Your task to perform on an android device: When is my next meeting? Image 0: 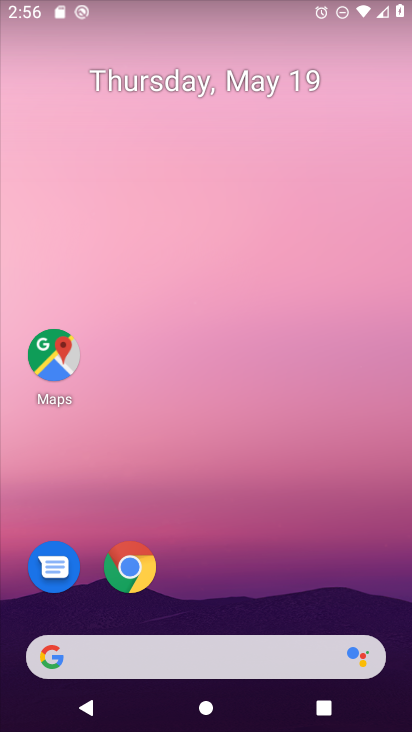
Step 0: drag from (242, 542) to (212, 62)
Your task to perform on an android device: When is my next meeting? Image 1: 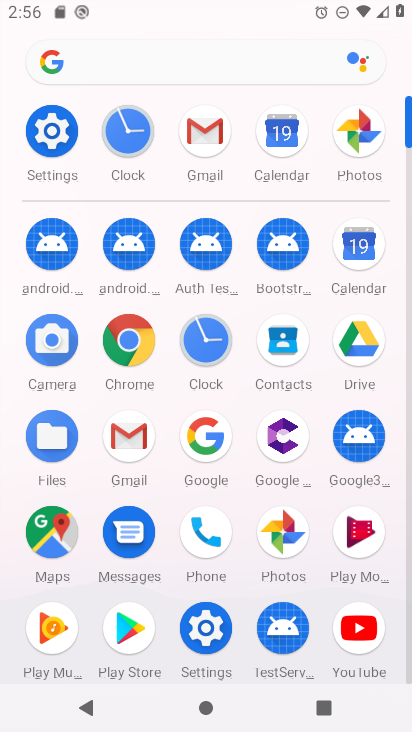
Step 1: click (286, 131)
Your task to perform on an android device: When is my next meeting? Image 2: 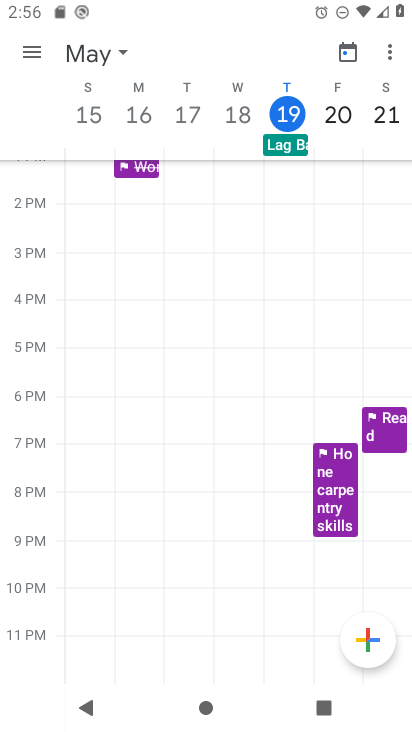
Step 2: click (288, 112)
Your task to perform on an android device: When is my next meeting? Image 3: 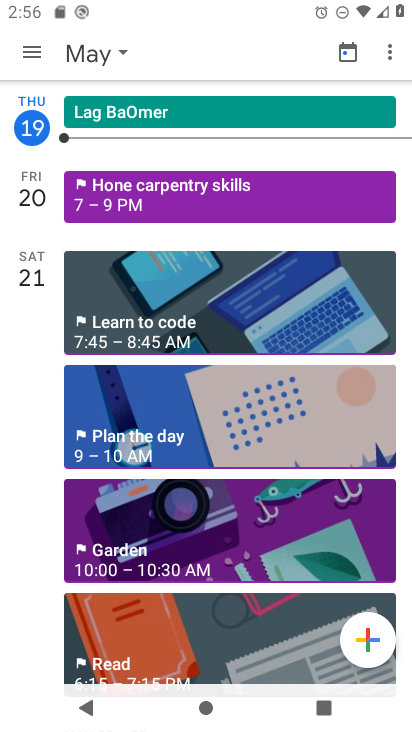
Step 3: task complete